Your task to perform on an android device: What is the recent news? Image 0: 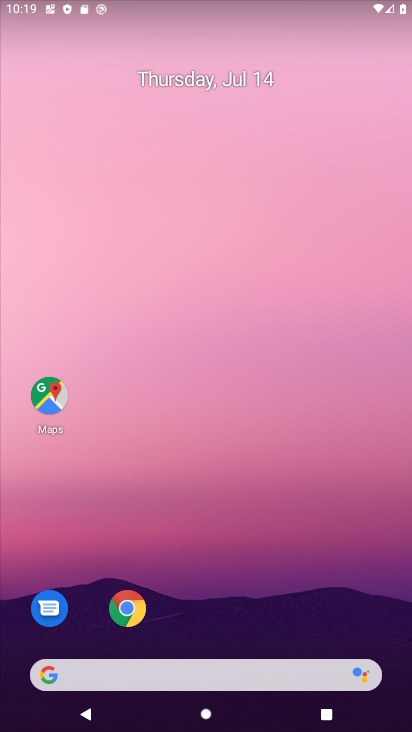
Step 0: drag from (4, 294) to (405, 322)
Your task to perform on an android device: What is the recent news? Image 1: 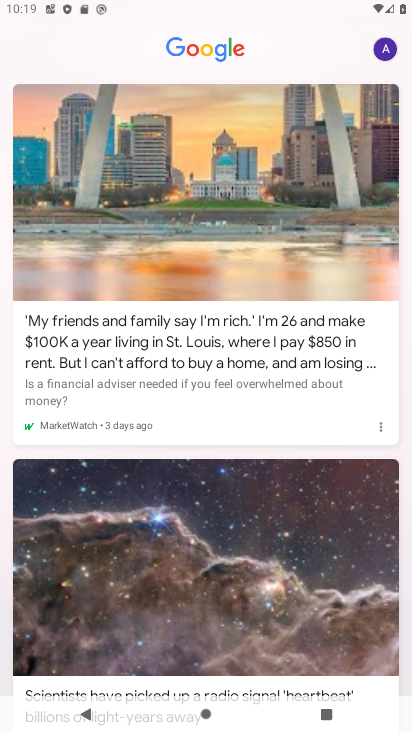
Step 1: task complete